Your task to perform on an android device: change the clock display to analog Image 0: 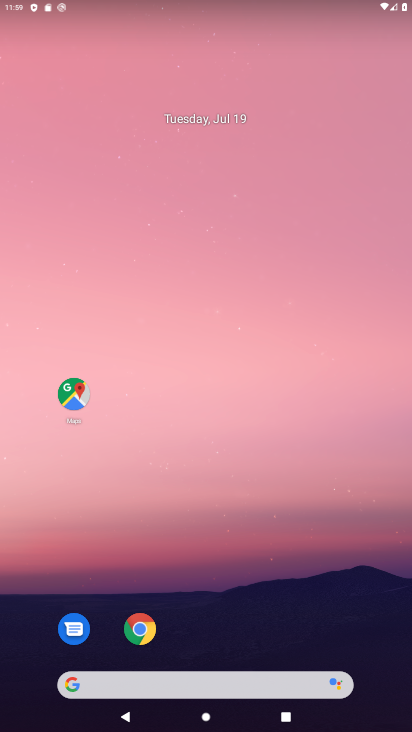
Step 0: drag from (170, 617) to (207, 21)
Your task to perform on an android device: change the clock display to analog Image 1: 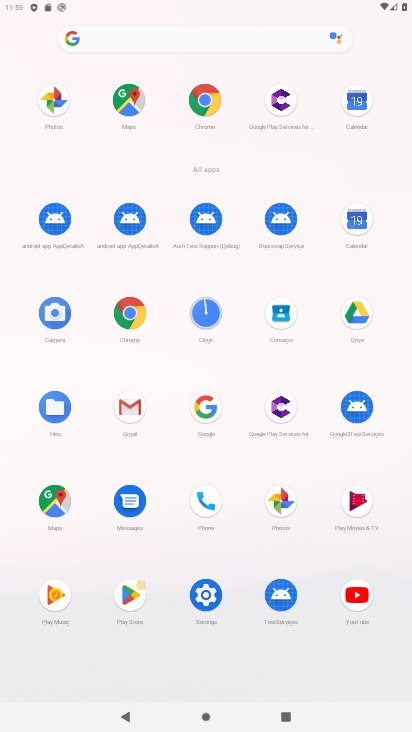
Step 1: click (210, 318)
Your task to perform on an android device: change the clock display to analog Image 2: 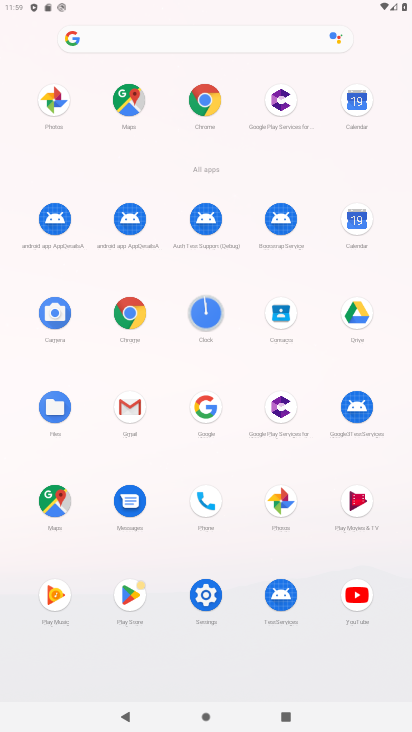
Step 2: click (210, 318)
Your task to perform on an android device: change the clock display to analog Image 3: 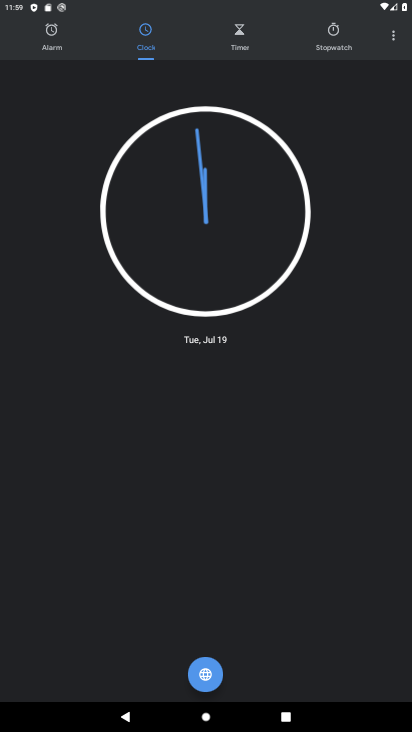
Step 3: click (396, 38)
Your task to perform on an android device: change the clock display to analog Image 4: 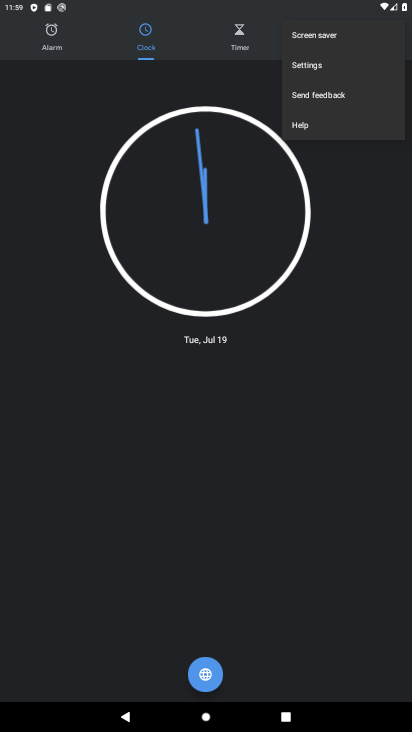
Step 4: click (322, 74)
Your task to perform on an android device: change the clock display to analog Image 5: 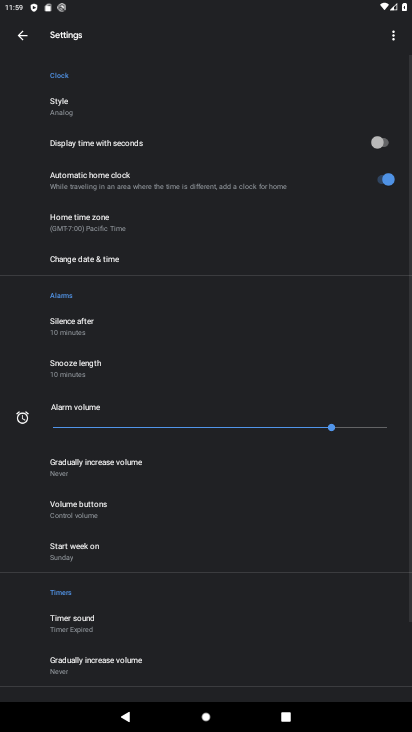
Step 5: click (68, 121)
Your task to perform on an android device: change the clock display to analog Image 6: 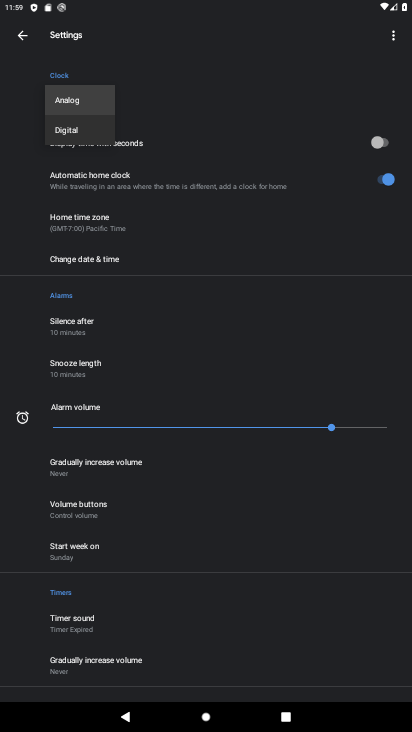
Step 6: click (84, 103)
Your task to perform on an android device: change the clock display to analog Image 7: 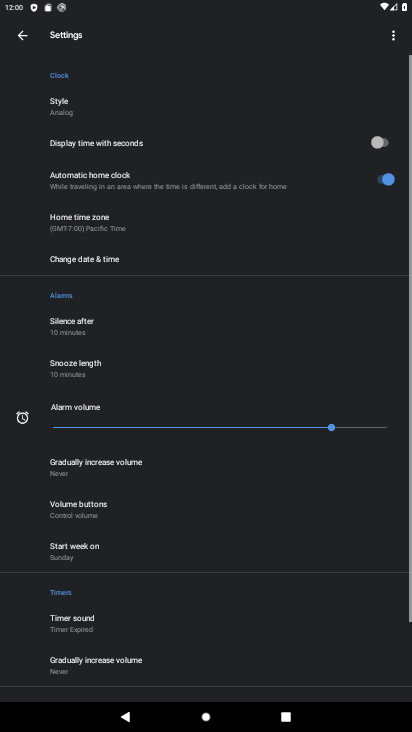
Step 7: task complete